Your task to perform on an android device: Open settings Image 0: 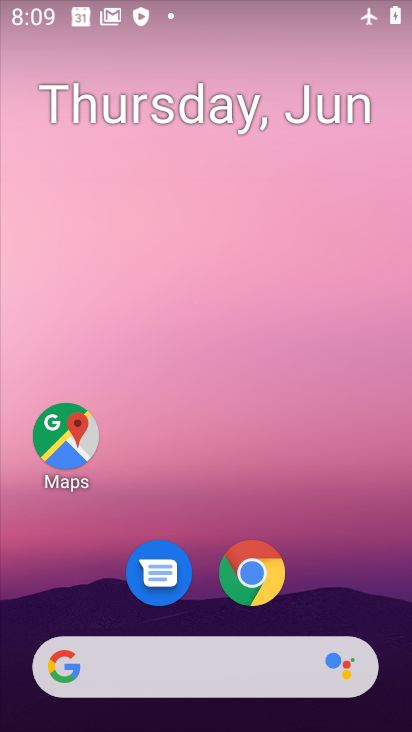
Step 0: drag from (299, 523) to (275, 264)
Your task to perform on an android device: Open settings Image 1: 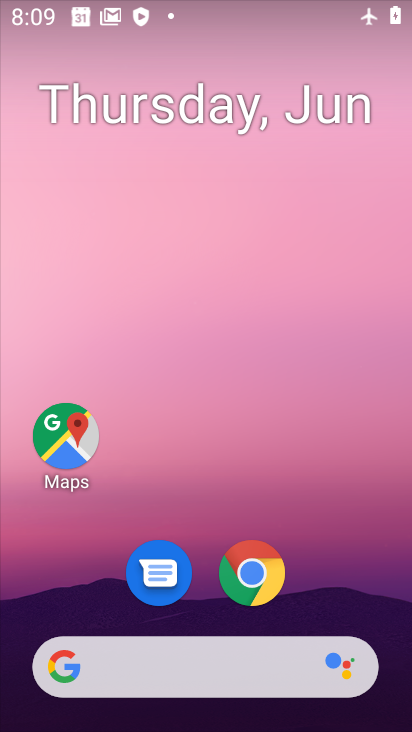
Step 1: drag from (297, 589) to (282, 174)
Your task to perform on an android device: Open settings Image 2: 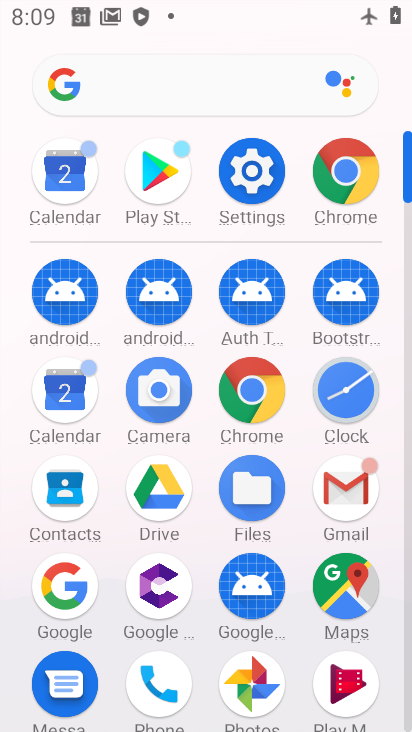
Step 2: click (238, 143)
Your task to perform on an android device: Open settings Image 3: 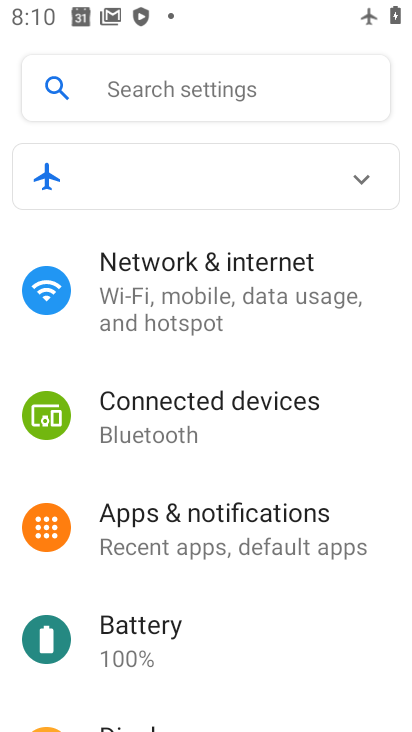
Step 3: task complete